Your task to perform on an android device: clear all cookies in the chrome app Image 0: 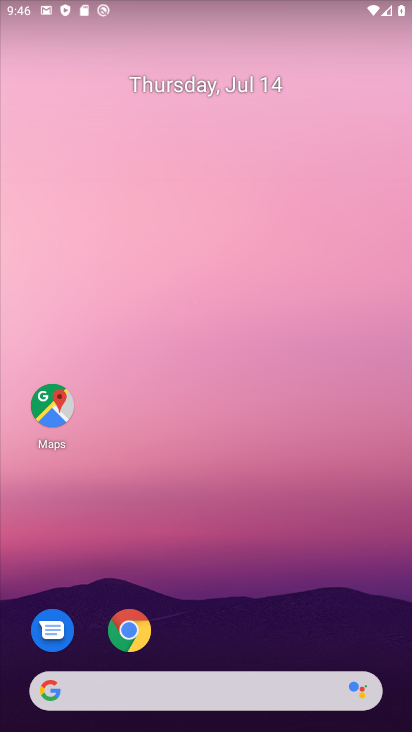
Step 0: drag from (205, 590) to (56, 59)
Your task to perform on an android device: clear all cookies in the chrome app Image 1: 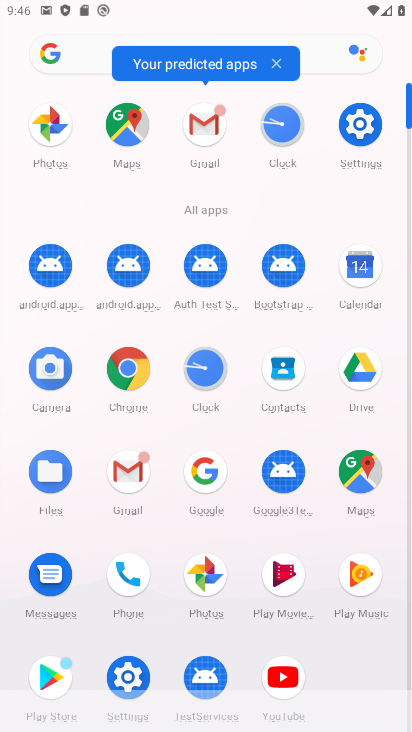
Step 1: click (127, 361)
Your task to perform on an android device: clear all cookies in the chrome app Image 2: 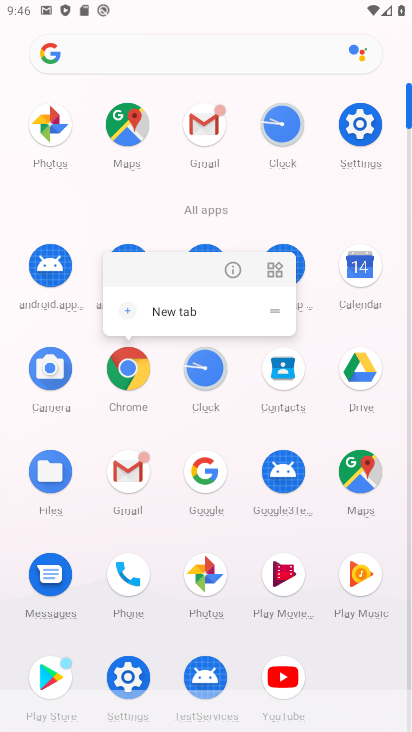
Step 2: click (226, 263)
Your task to perform on an android device: clear all cookies in the chrome app Image 3: 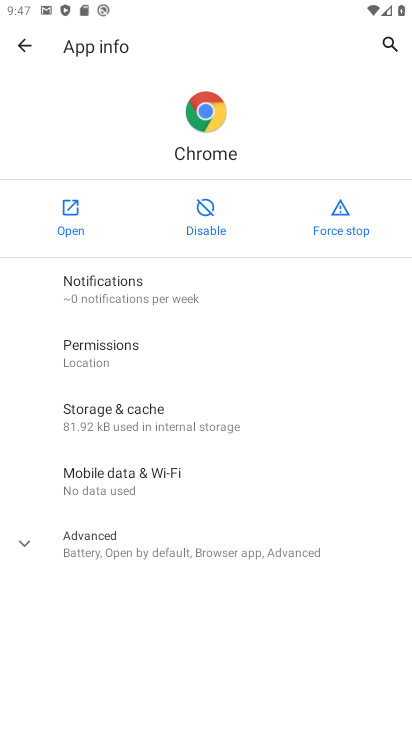
Step 3: click (61, 209)
Your task to perform on an android device: clear all cookies in the chrome app Image 4: 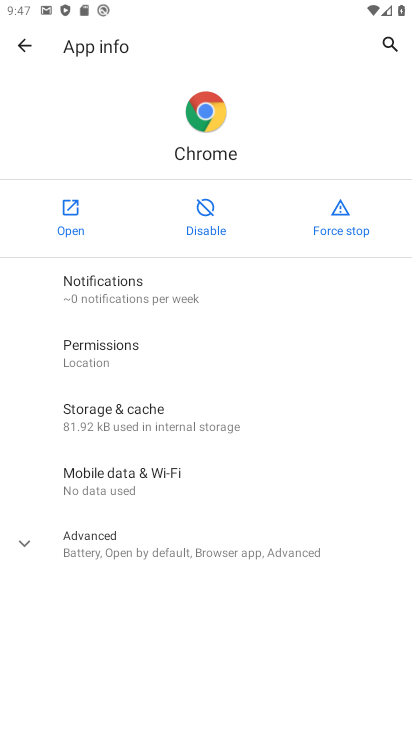
Step 4: click (55, 208)
Your task to perform on an android device: clear all cookies in the chrome app Image 5: 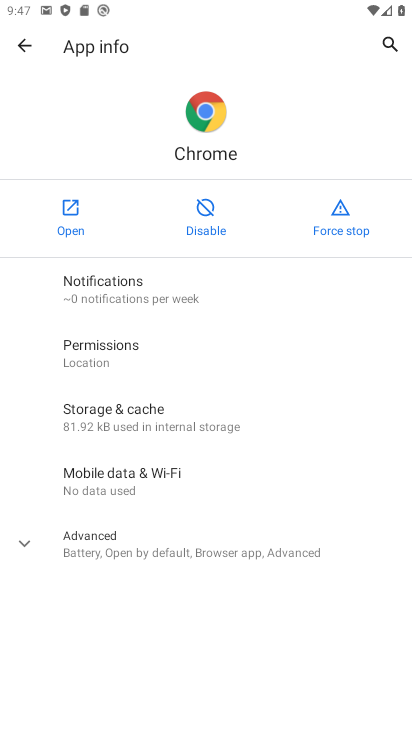
Step 5: click (55, 208)
Your task to perform on an android device: clear all cookies in the chrome app Image 6: 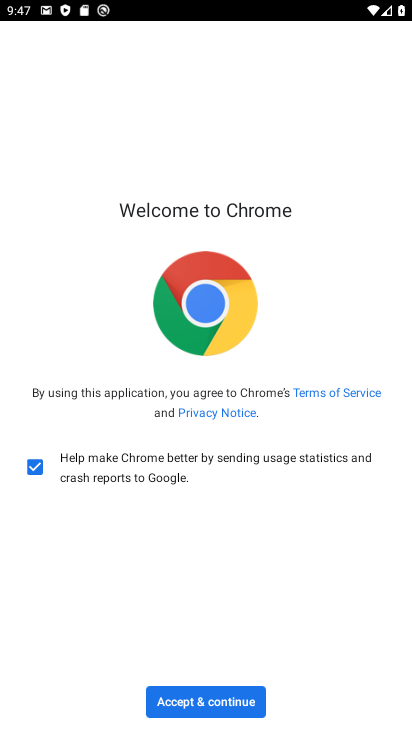
Step 6: click (213, 680)
Your task to perform on an android device: clear all cookies in the chrome app Image 7: 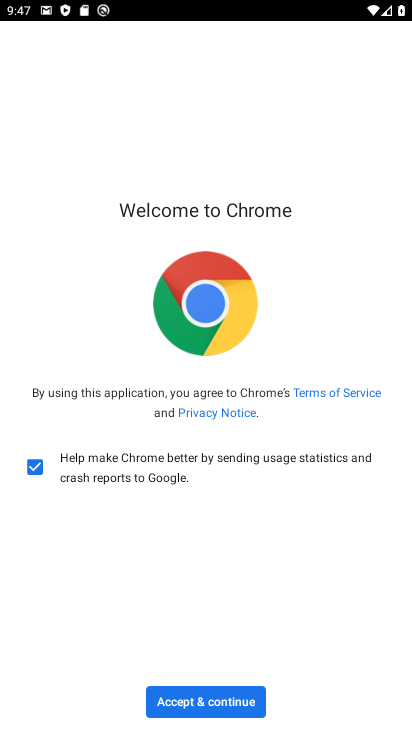
Step 7: click (189, 696)
Your task to perform on an android device: clear all cookies in the chrome app Image 8: 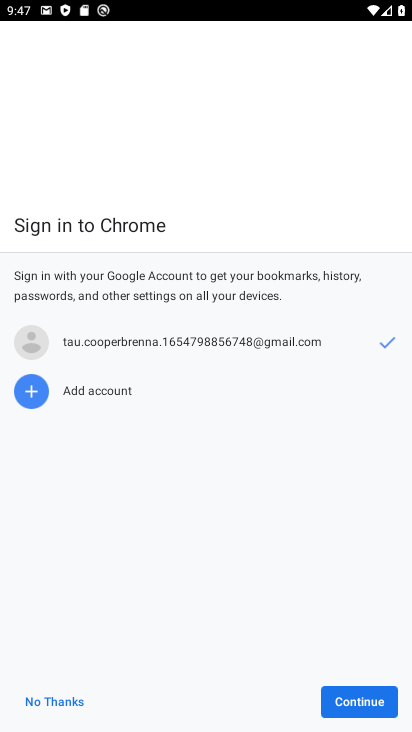
Step 8: click (359, 693)
Your task to perform on an android device: clear all cookies in the chrome app Image 9: 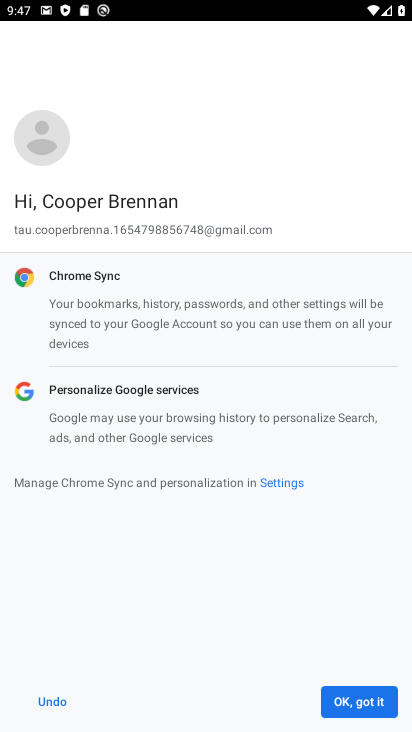
Step 9: click (360, 693)
Your task to perform on an android device: clear all cookies in the chrome app Image 10: 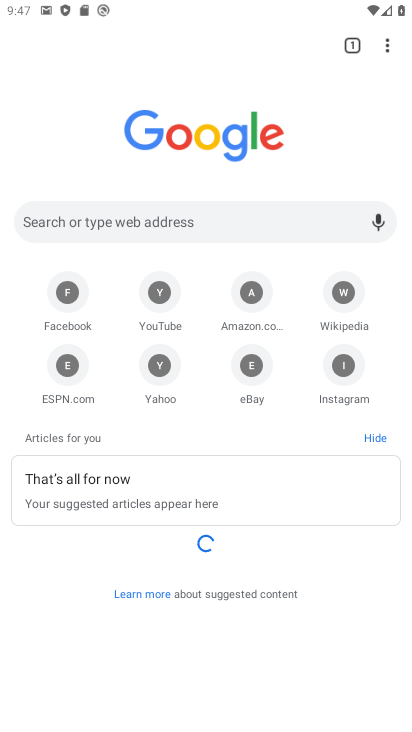
Step 10: click (380, 46)
Your task to perform on an android device: clear all cookies in the chrome app Image 11: 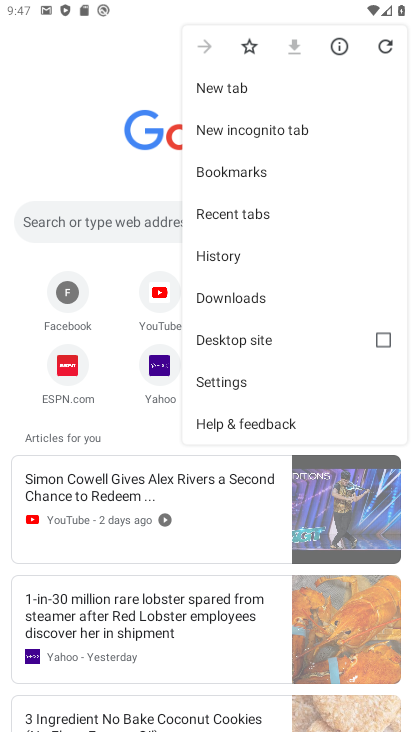
Step 11: click (230, 250)
Your task to perform on an android device: clear all cookies in the chrome app Image 12: 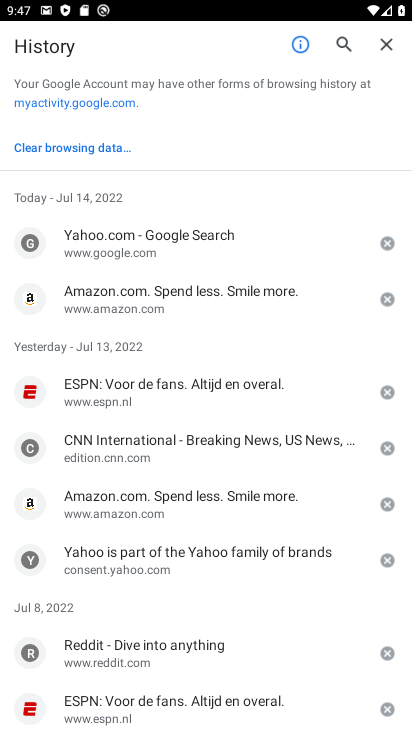
Step 12: click (46, 152)
Your task to perform on an android device: clear all cookies in the chrome app Image 13: 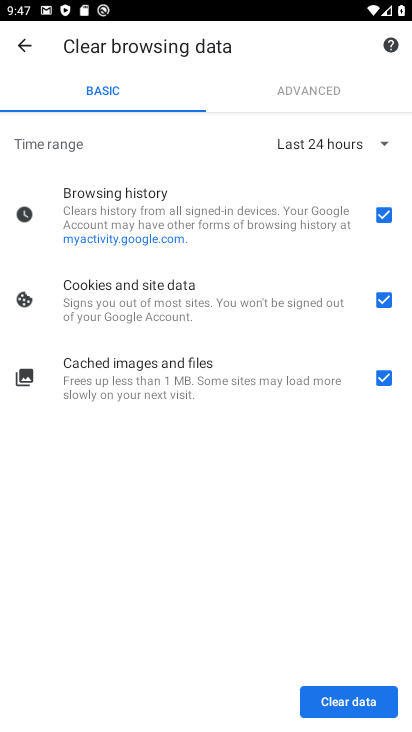
Step 13: click (383, 221)
Your task to perform on an android device: clear all cookies in the chrome app Image 14: 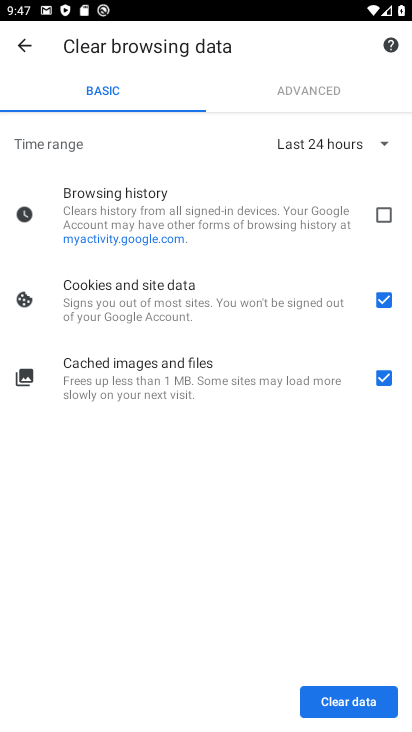
Step 14: click (379, 375)
Your task to perform on an android device: clear all cookies in the chrome app Image 15: 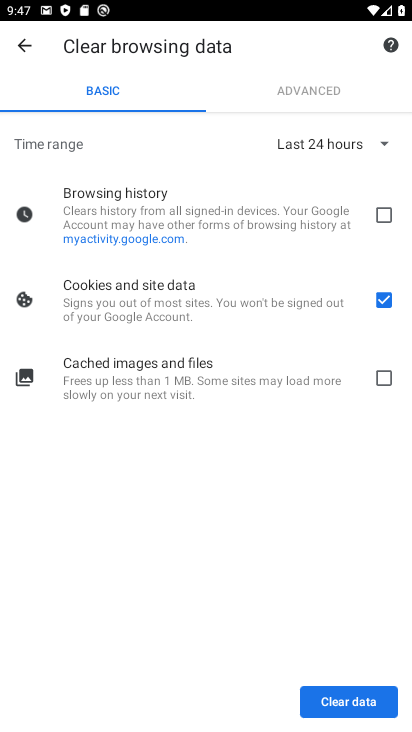
Step 15: click (341, 706)
Your task to perform on an android device: clear all cookies in the chrome app Image 16: 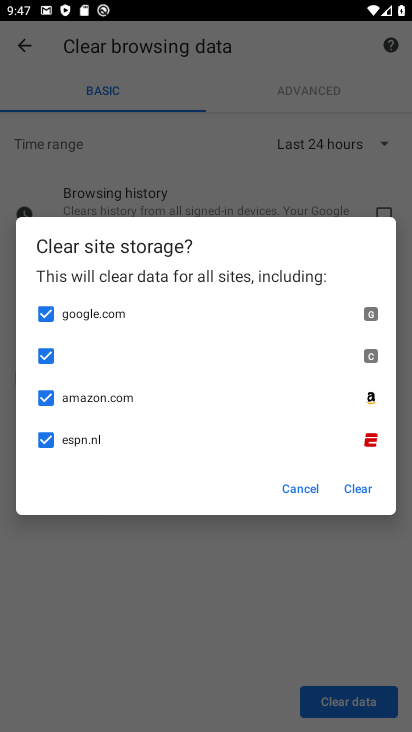
Step 16: click (369, 480)
Your task to perform on an android device: clear all cookies in the chrome app Image 17: 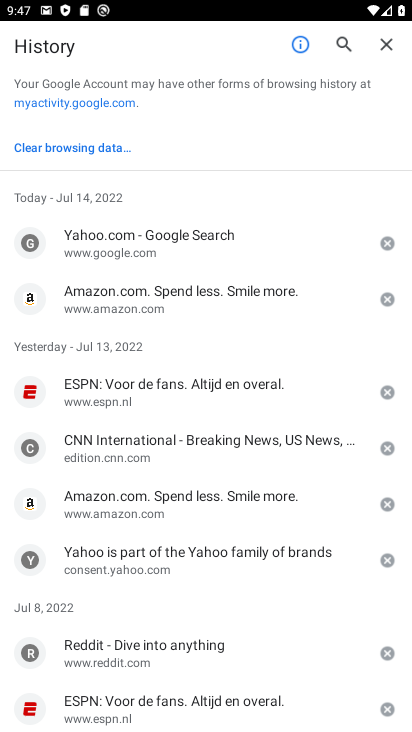
Step 17: task complete